Your task to perform on an android device: What's the weather? Image 0: 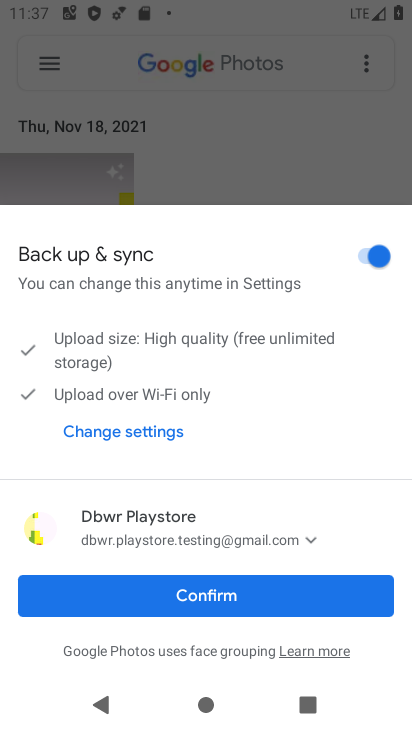
Step 0: press home button
Your task to perform on an android device: What's the weather? Image 1: 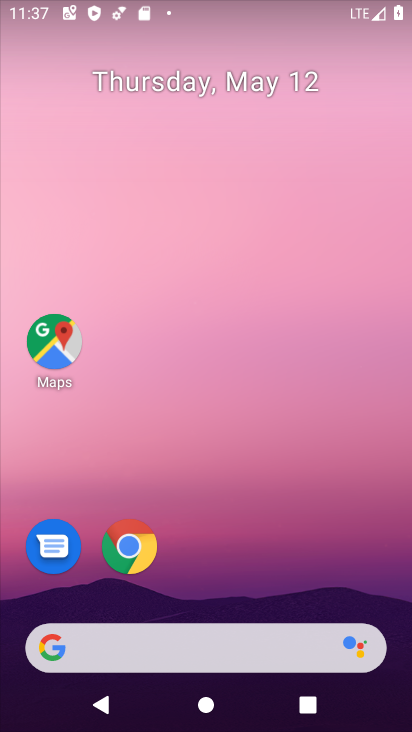
Step 1: click (167, 658)
Your task to perform on an android device: What's the weather? Image 2: 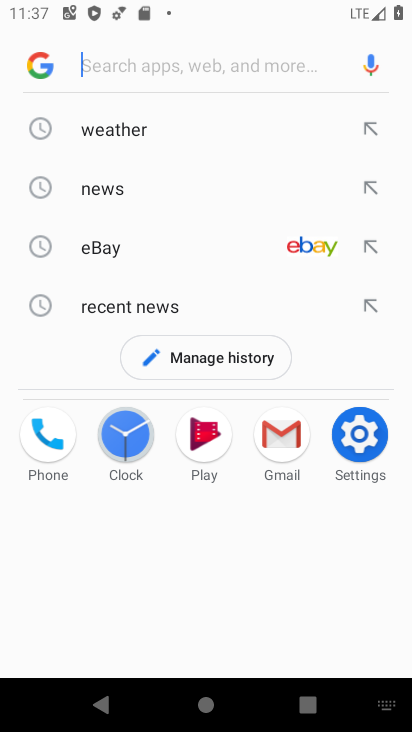
Step 2: click (160, 135)
Your task to perform on an android device: What's the weather? Image 3: 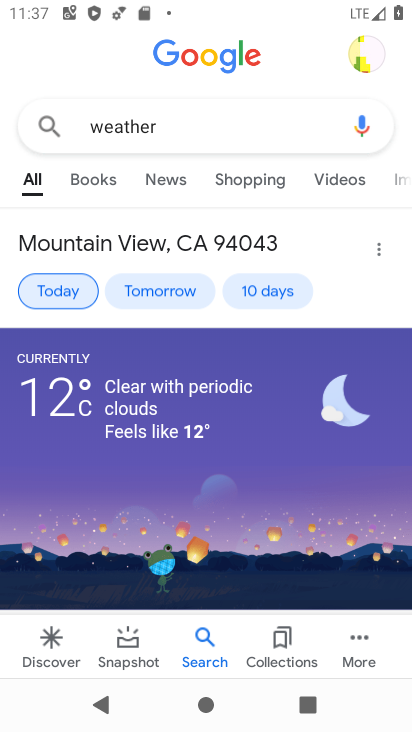
Step 3: task complete